Your task to perform on an android device: Set the phone to "Do not disturb". Image 0: 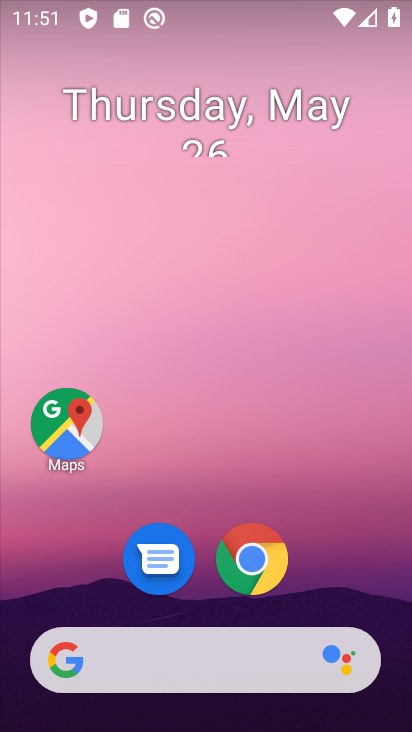
Step 0: drag from (336, 556) to (270, 124)
Your task to perform on an android device: Set the phone to "Do not disturb". Image 1: 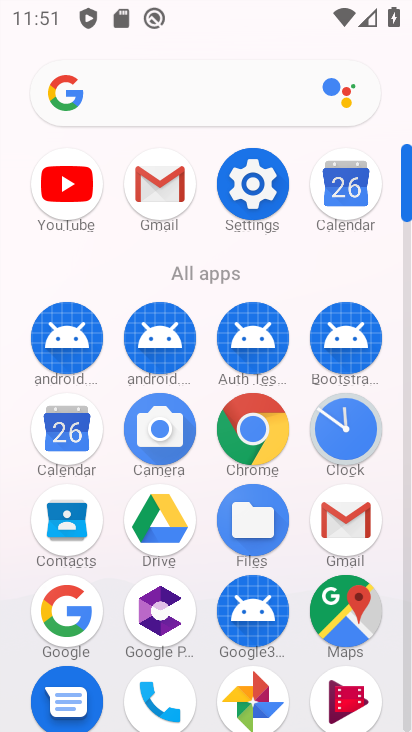
Step 1: click (251, 165)
Your task to perform on an android device: Set the phone to "Do not disturb". Image 2: 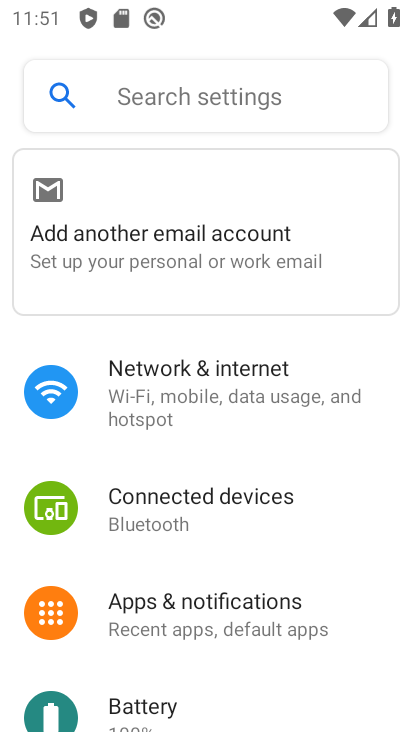
Step 2: drag from (280, 657) to (306, 256)
Your task to perform on an android device: Set the phone to "Do not disturb". Image 3: 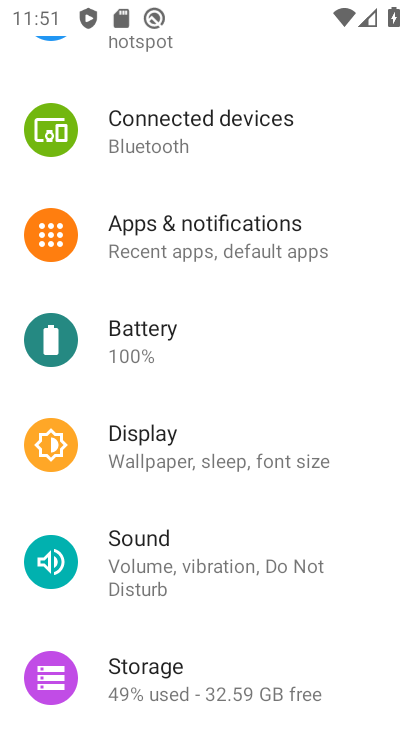
Step 3: click (246, 575)
Your task to perform on an android device: Set the phone to "Do not disturb". Image 4: 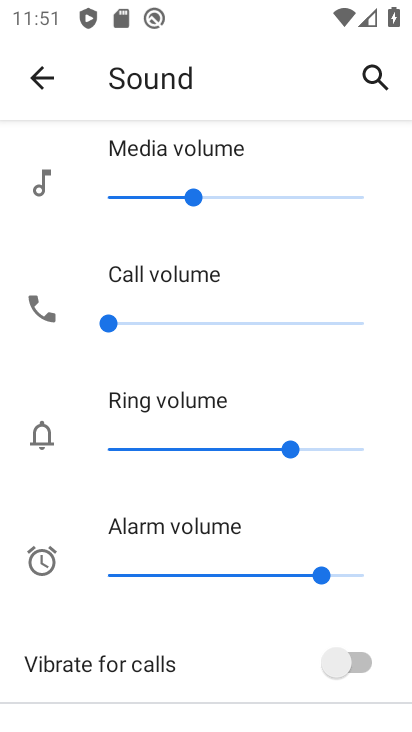
Step 4: drag from (209, 651) to (236, 207)
Your task to perform on an android device: Set the phone to "Do not disturb". Image 5: 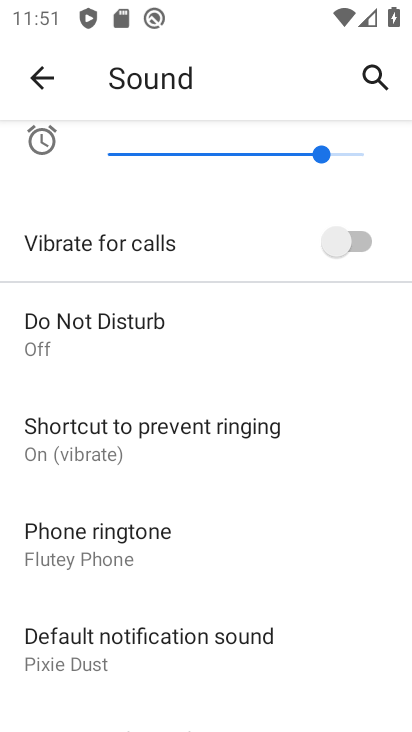
Step 5: click (154, 325)
Your task to perform on an android device: Set the phone to "Do not disturb". Image 6: 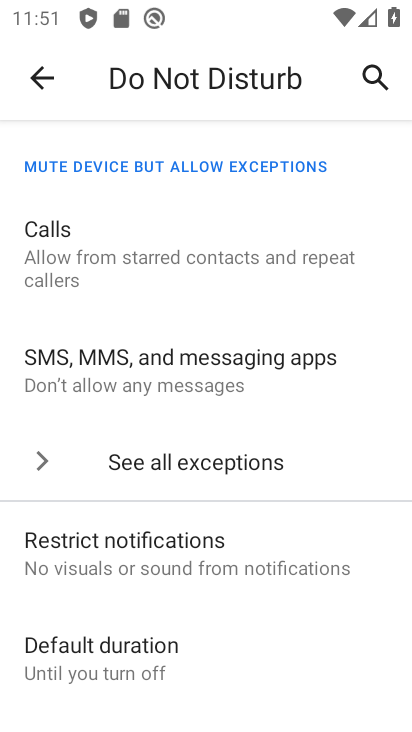
Step 6: drag from (220, 640) to (254, 258)
Your task to perform on an android device: Set the phone to "Do not disturb". Image 7: 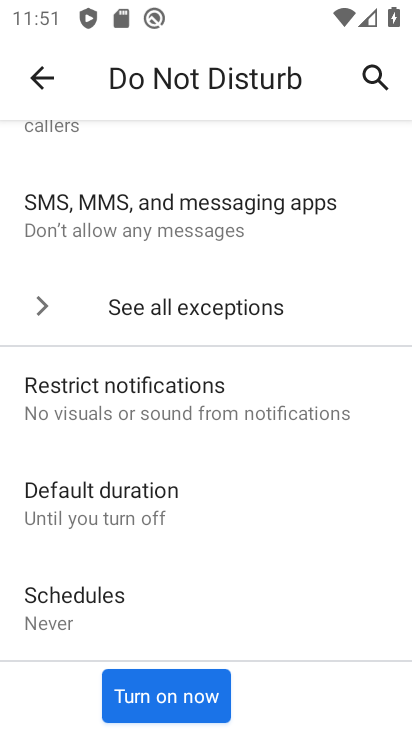
Step 7: click (153, 709)
Your task to perform on an android device: Set the phone to "Do not disturb". Image 8: 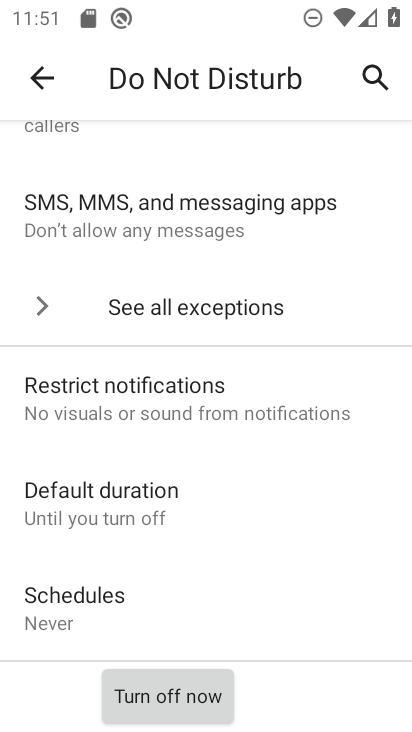
Step 8: task complete